Your task to perform on an android device: visit the assistant section in the google photos Image 0: 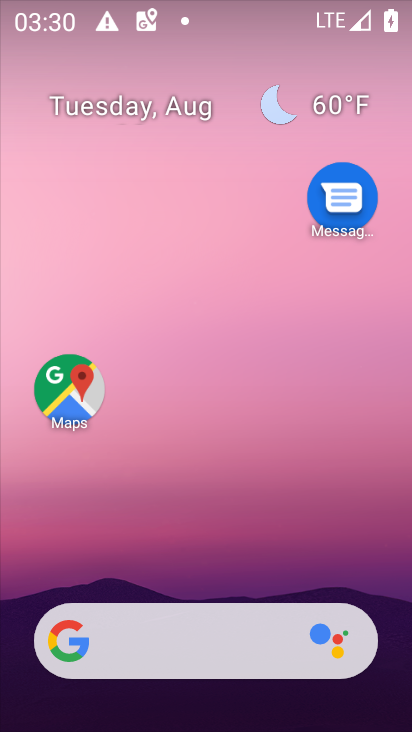
Step 0: drag from (216, 595) to (251, 95)
Your task to perform on an android device: visit the assistant section in the google photos Image 1: 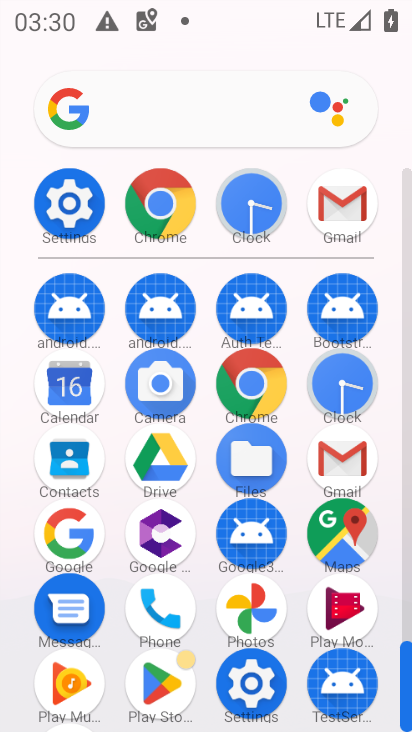
Step 1: click (258, 617)
Your task to perform on an android device: visit the assistant section in the google photos Image 2: 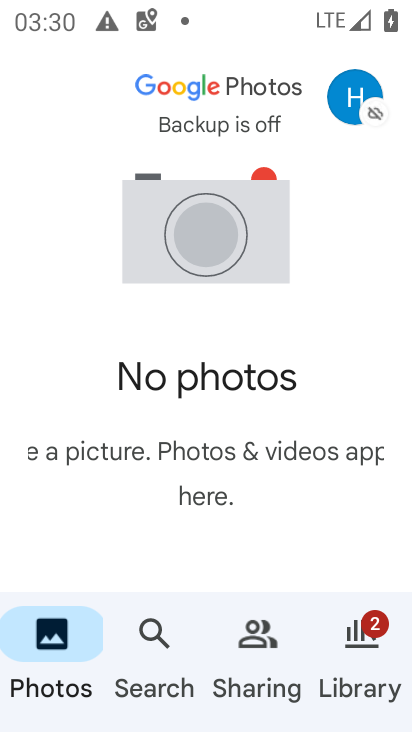
Step 2: click (356, 654)
Your task to perform on an android device: visit the assistant section in the google photos Image 3: 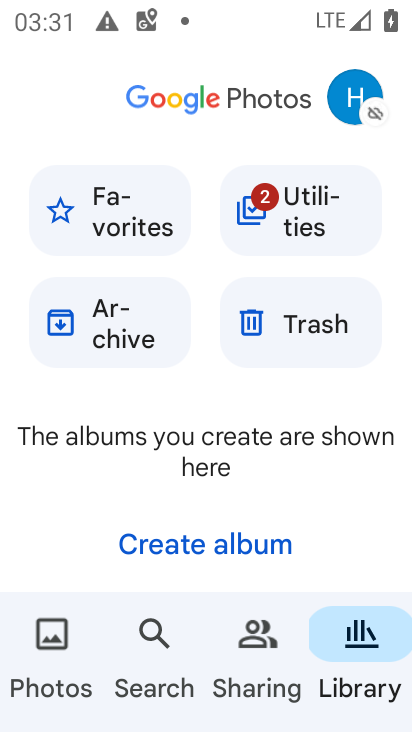
Step 3: click (120, 309)
Your task to perform on an android device: visit the assistant section in the google photos Image 4: 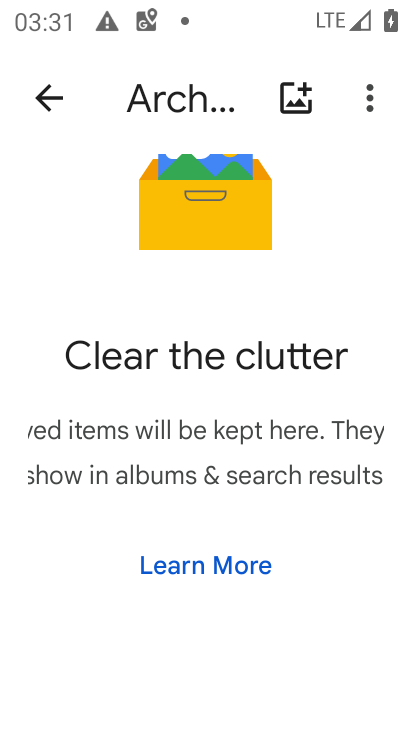
Step 4: task complete